Your task to perform on an android device: Go to Reddit.com Image 0: 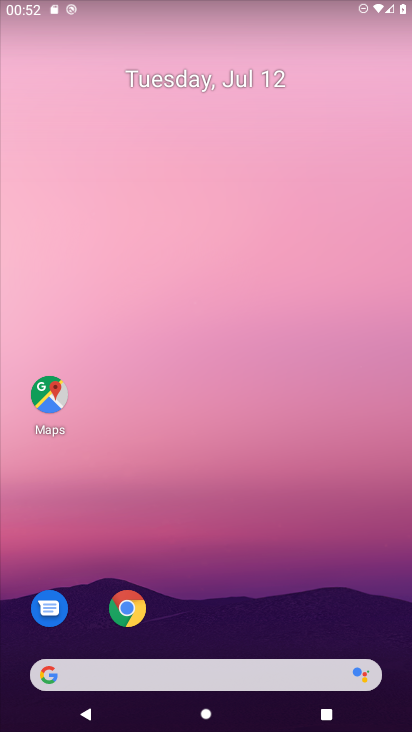
Step 0: click (117, 605)
Your task to perform on an android device: Go to Reddit.com Image 1: 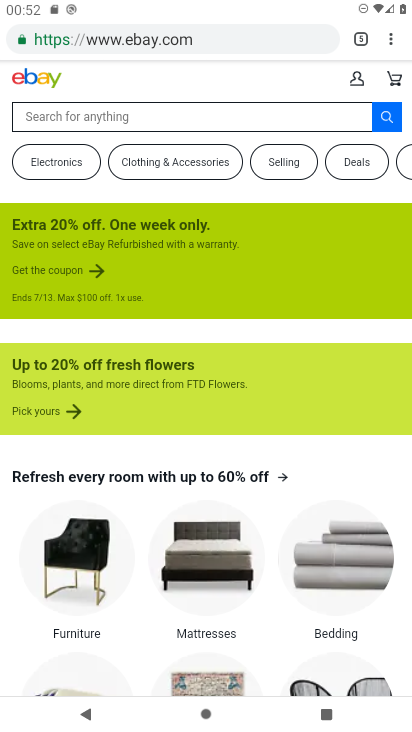
Step 1: click (355, 42)
Your task to perform on an android device: Go to Reddit.com Image 2: 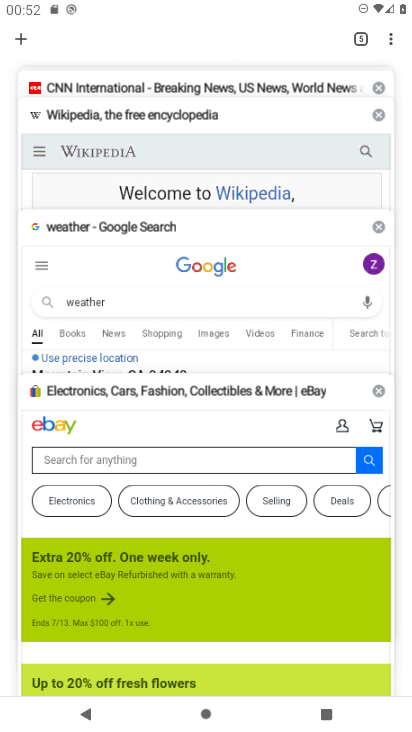
Step 2: click (25, 31)
Your task to perform on an android device: Go to Reddit.com Image 3: 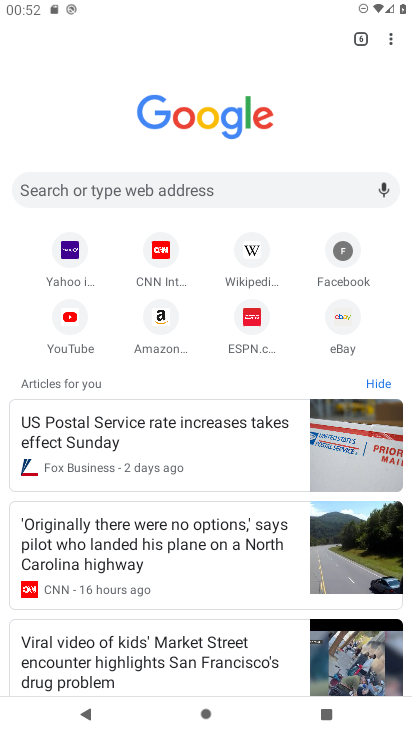
Step 3: click (189, 189)
Your task to perform on an android device: Go to Reddit.com Image 4: 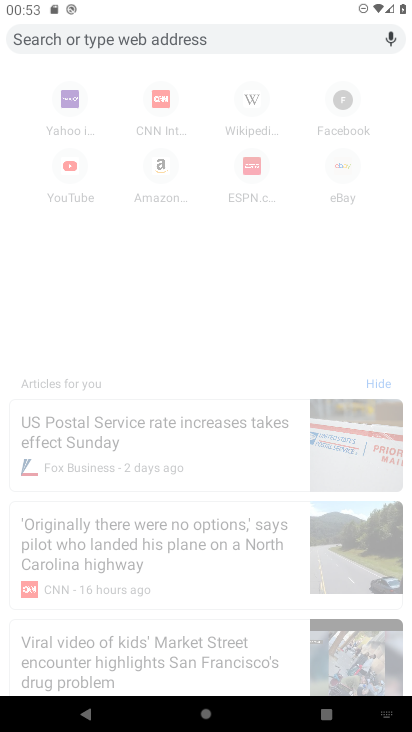
Step 4: type "reddit"
Your task to perform on an android device: Go to Reddit.com Image 5: 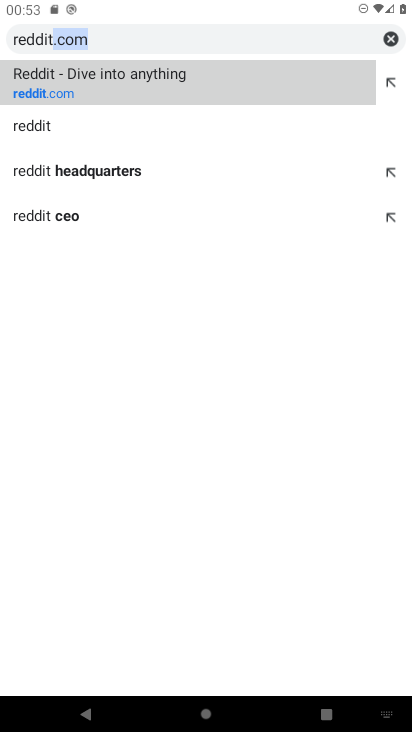
Step 5: click (107, 77)
Your task to perform on an android device: Go to Reddit.com Image 6: 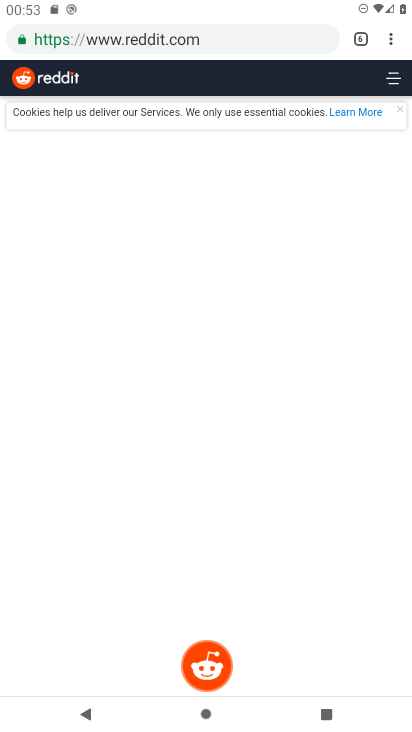
Step 6: task complete